Your task to perform on an android device: Open accessibility settings Image 0: 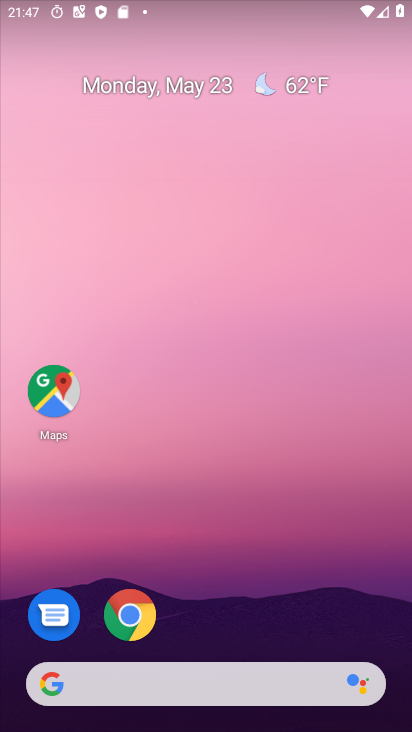
Step 0: drag from (233, 599) to (233, 89)
Your task to perform on an android device: Open accessibility settings Image 1: 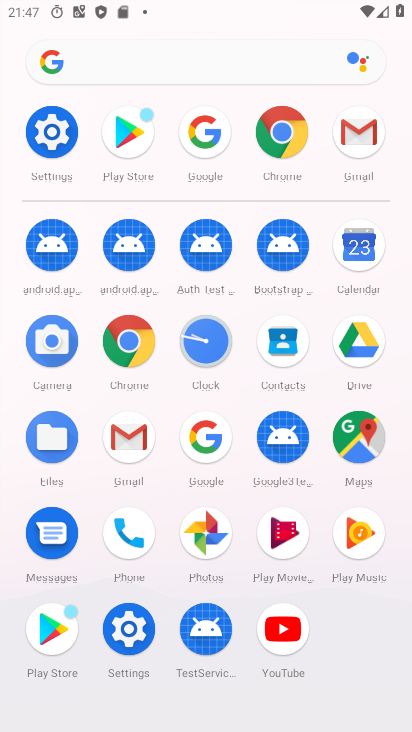
Step 1: click (51, 136)
Your task to perform on an android device: Open accessibility settings Image 2: 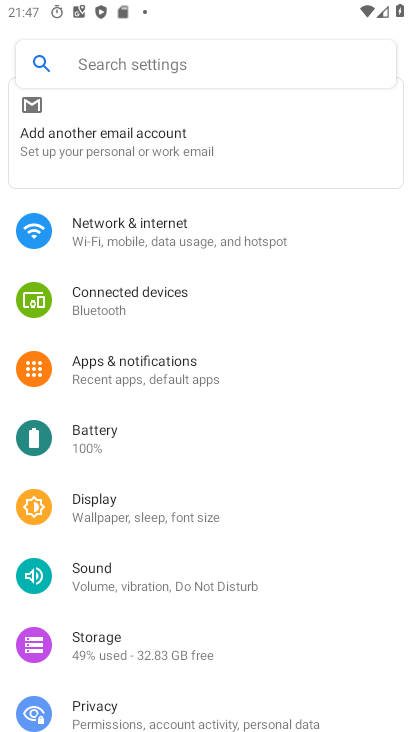
Step 2: drag from (275, 666) to (299, 104)
Your task to perform on an android device: Open accessibility settings Image 3: 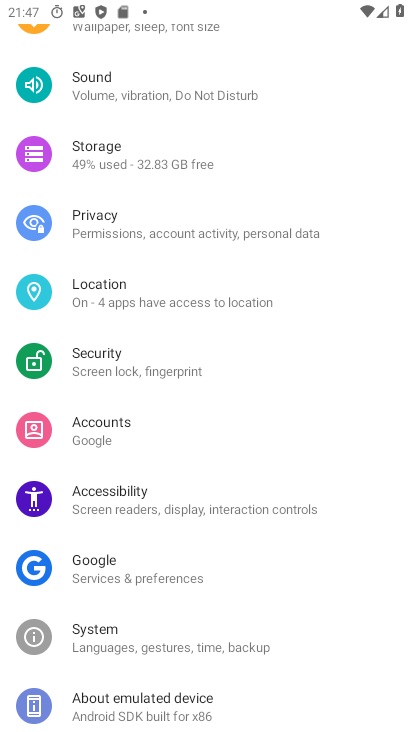
Step 3: click (134, 496)
Your task to perform on an android device: Open accessibility settings Image 4: 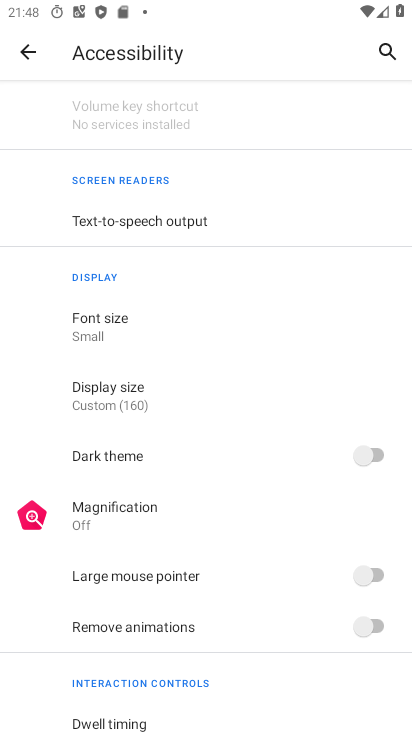
Step 4: task complete